Your task to perform on an android device: turn off javascript in the chrome app Image 0: 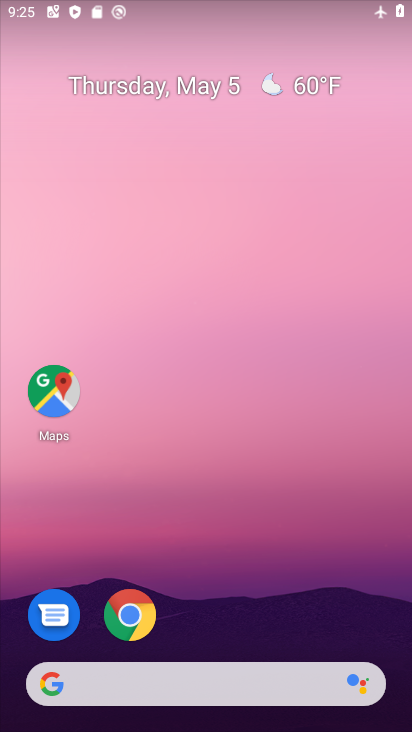
Step 0: click (133, 612)
Your task to perform on an android device: turn off javascript in the chrome app Image 1: 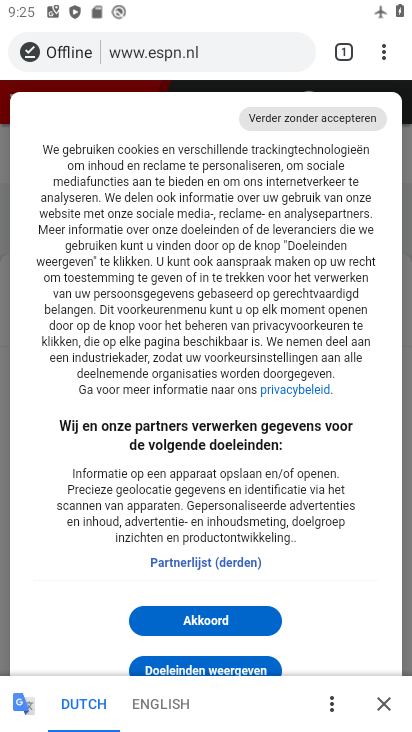
Step 1: click (374, 54)
Your task to perform on an android device: turn off javascript in the chrome app Image 2: 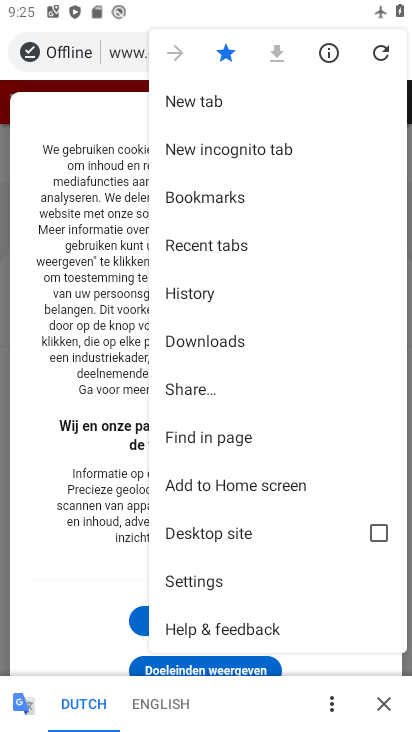
Step 2: drag from (237, 538) to (229, 284)
Your task to perform on an android device: turn off javascript in the chrome app Image 3: 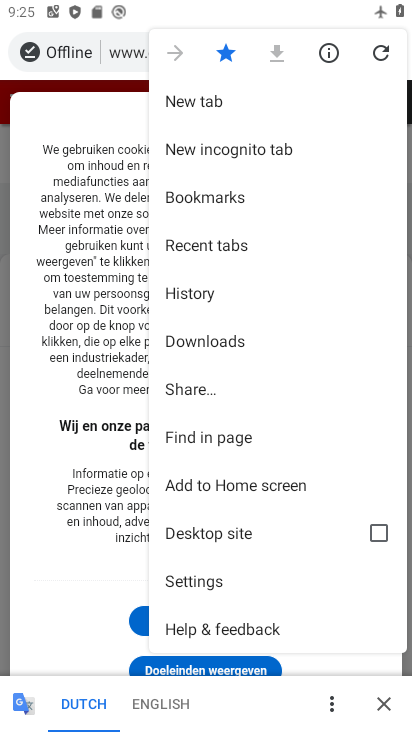
Step 3: click (218, 586)
Your task to perform on an android device: turn off javascript in the chrome app Image 4: 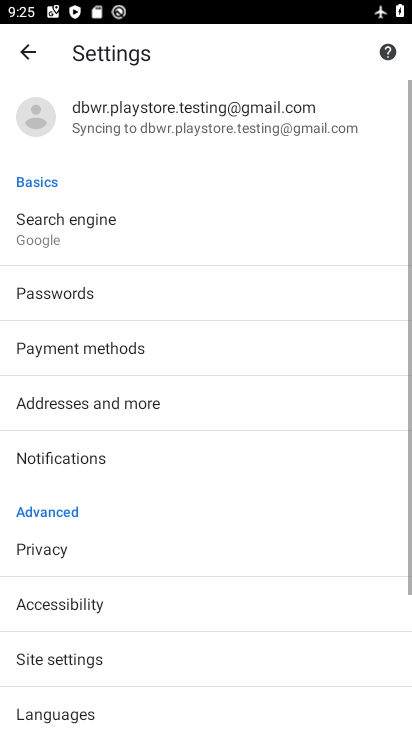
Step 4: drag from (217, 577) to (216, 295)
Your task to perform on an android device: turn off javascript in the chrome app Image 5: 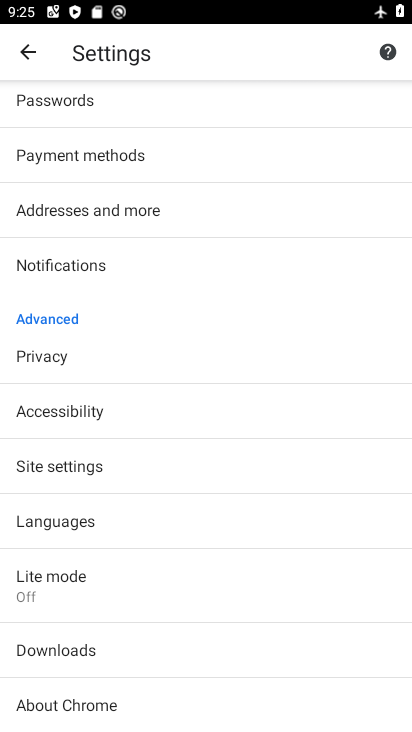
Step 5: click (107, 486)
Your task to perform on an android device: turn off javascript in the chrome app Image 6: 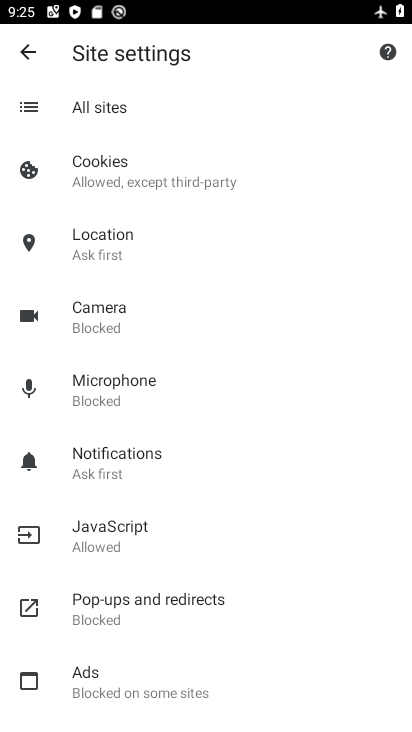
Step 6: click (116, 539)
Your task to perform on an android device: turn off javascript in the chrome app Image 7: 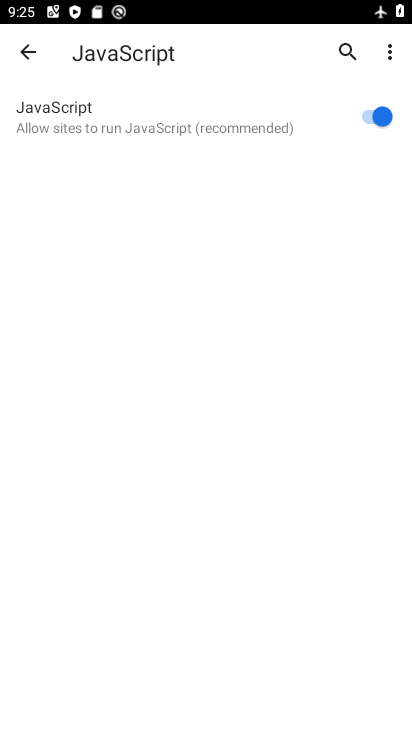
Step 7: click (387, 111)
Your task to perform on an android device: turn off javascript in the chrome app Image 8: 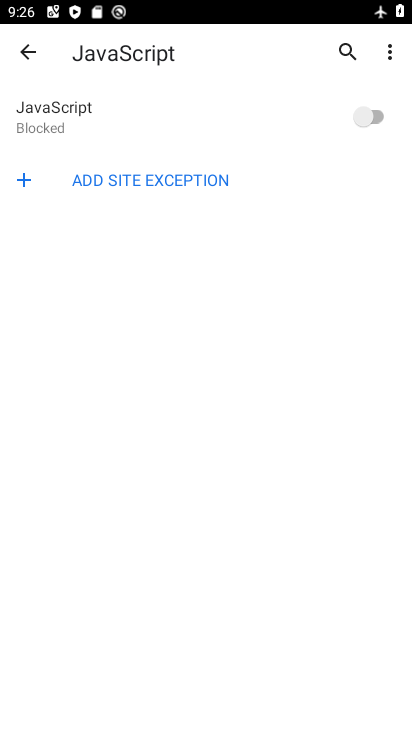
Step 8: task complete